Your task to perform on an android device: turn off location history Image 0: 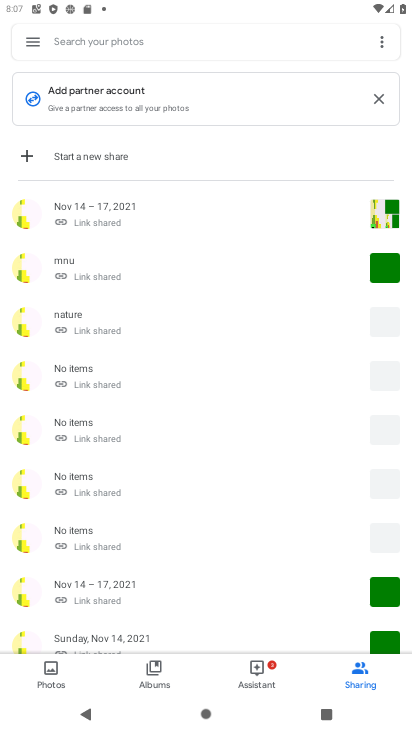
Step 0: press home button
Your task to perform on an android device: turn off location history Image 1: 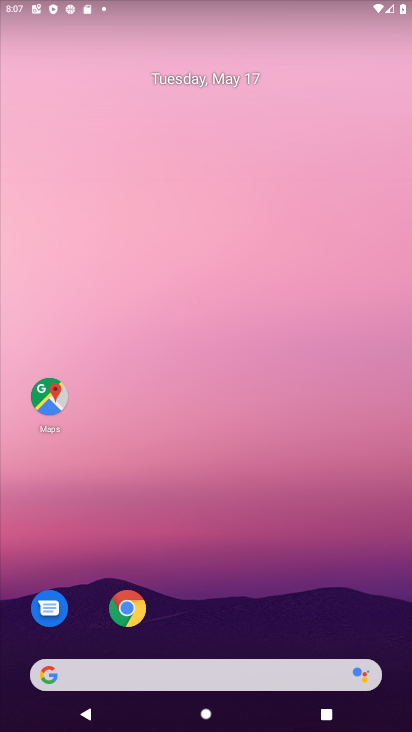
Step 1: drag from (191, 653) to (209, 178)
Your task to perform on an android device: turn off location history Image 2: 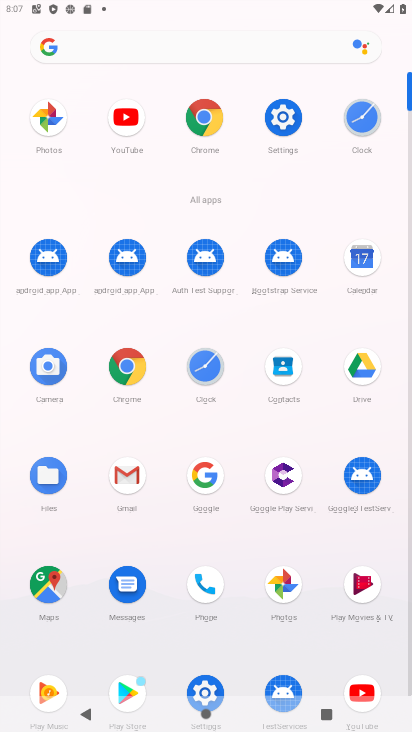
Step 2: click (291, 108)
Your task to perform on an android device: turn off location history Image 3: 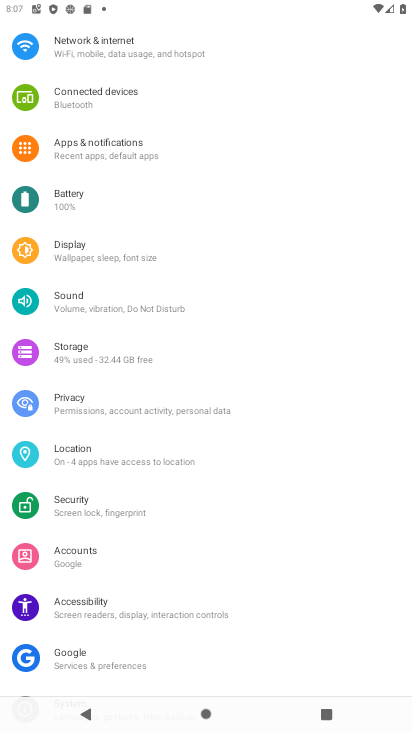
Step 3: click (124, 449)
Your task to perform on an android device: turn off location history Image 4: 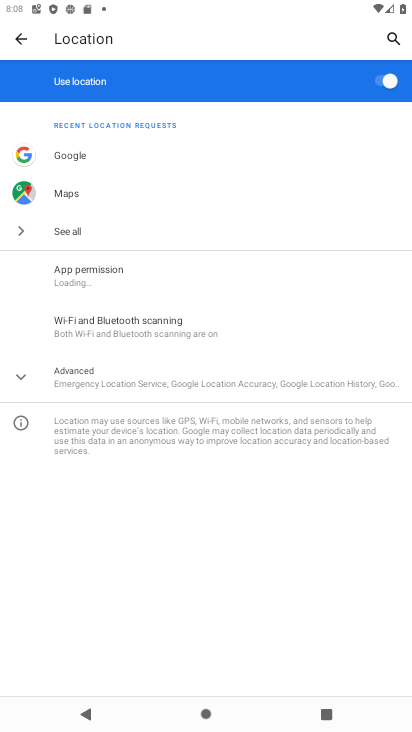
Step 4: click (119, 381)
Your task to perform on an android device: turn off location history Image 5: 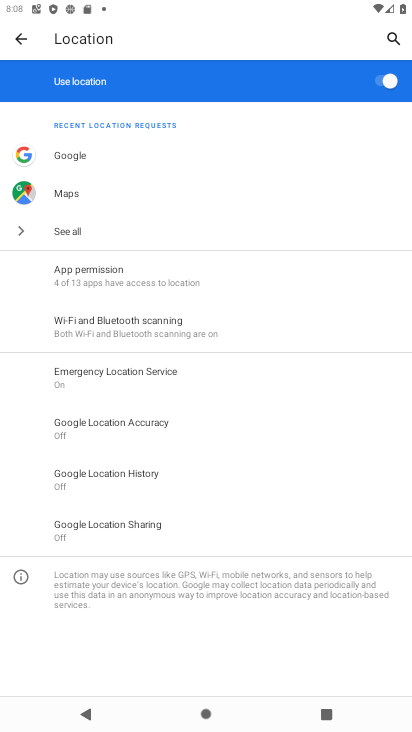
Step 5: click (165, 485)
Your task to perform on an android device: turn off location history Image 6: 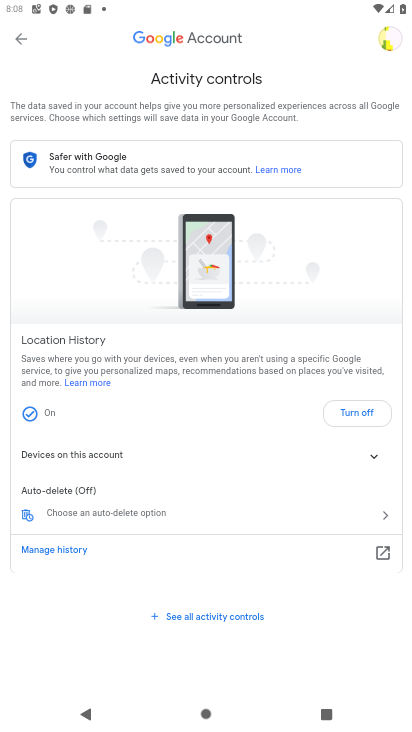
Step 6: click (360, 422)
Your task to perform on an android device: turn off location history Image 7: 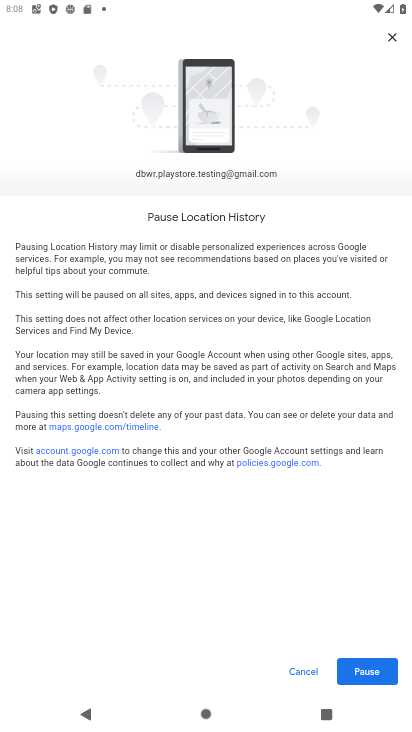
Step 7: click (368, 666)
Your task to perform on an android device: turn off location history Image 8: 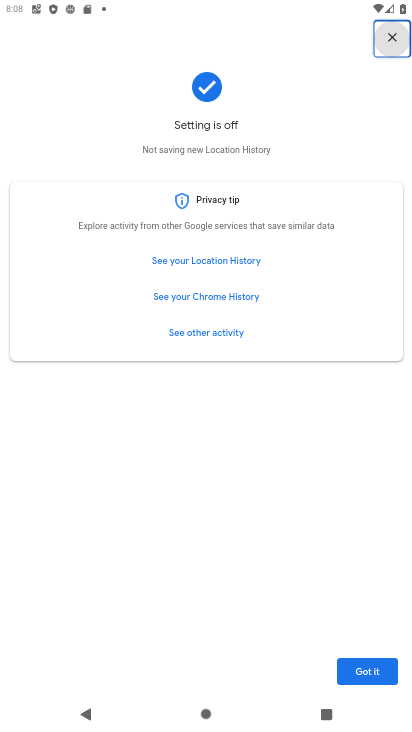
Step 8: click (366, 674)
Your task to perform on an android device: turn off location history Image 9: 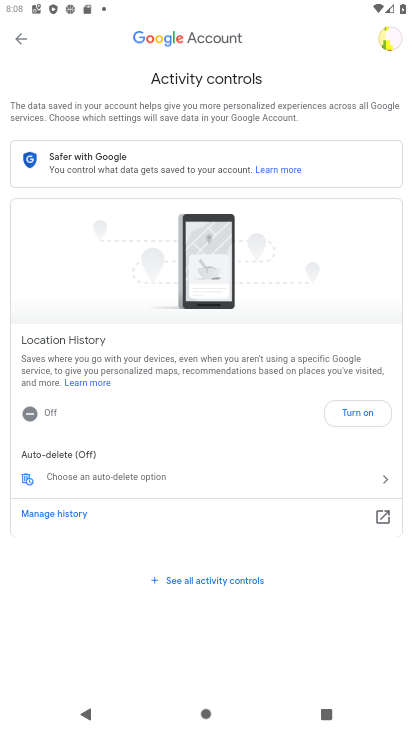
Step 9: task complete